Your task to perform on an android device: turn on bluetooth scan Image 0: 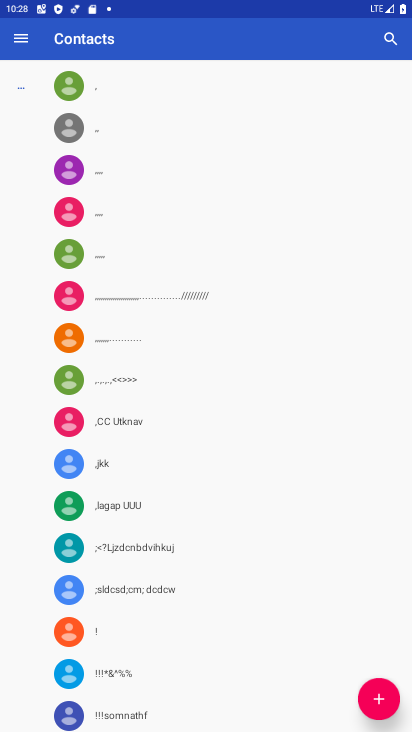
Step 0: press home button
Your task to perform on an android device: turn on bluetooth scan Image 1: 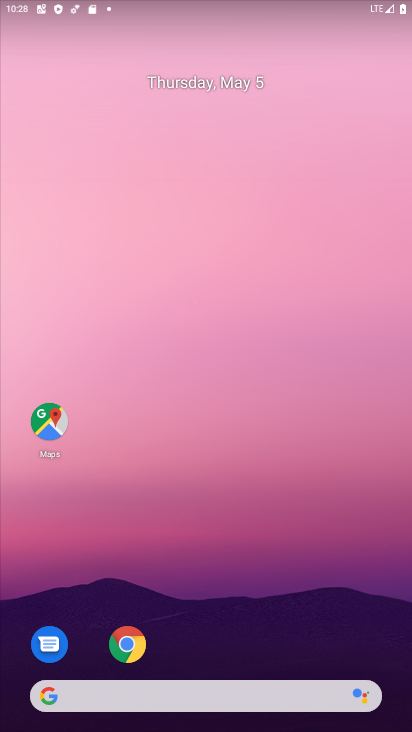
Step 1: drag from (202, 668) to (202, 4)
Your task to perform on an android device: turn on bluetooth scan Image 2: 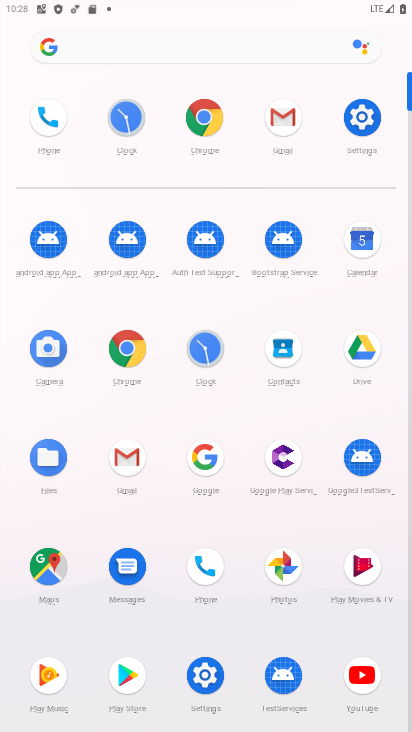
Step 2: click (366, 115)
Your task to perform on an android device: turn on bluetooth scan Image 3: 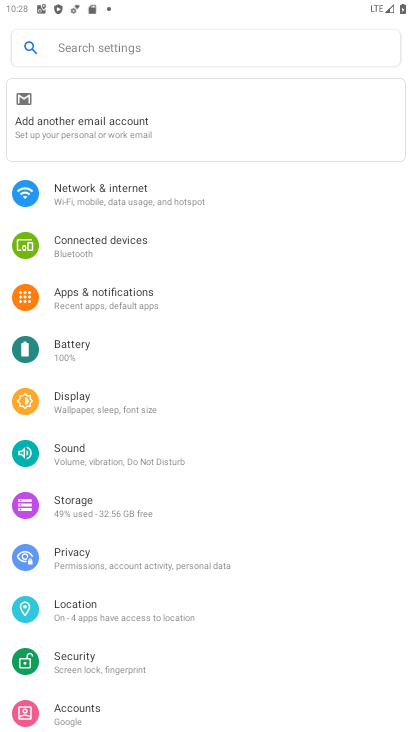
Step 3: click (89, 623)
Your task to perform on an android device: turn on bluetooth scan Image 4: 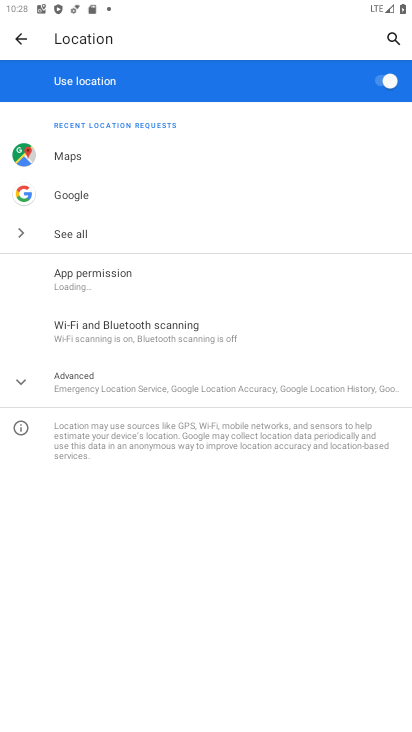
Step 4: click (164, 325)
Your task to perform on an android device: turn on bluetooth scan Image 5: 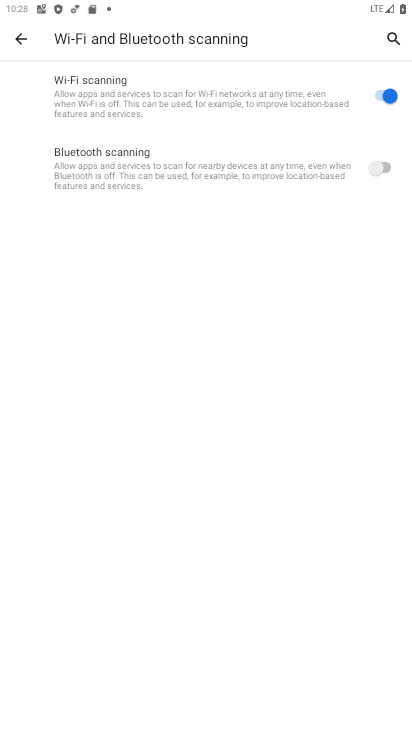
Step 5: click (379, 167)
Your task to perform on an android device: turn on bluetooth scan Image 6: 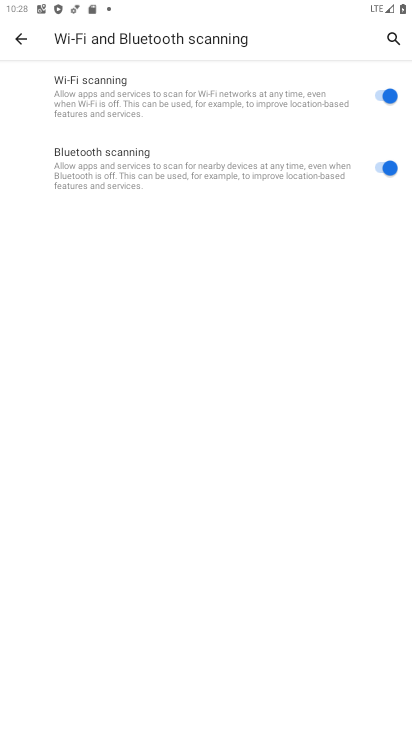
Step 6: task complete